Your task to perform on an android device: change your default location settings in chrome Image 0: 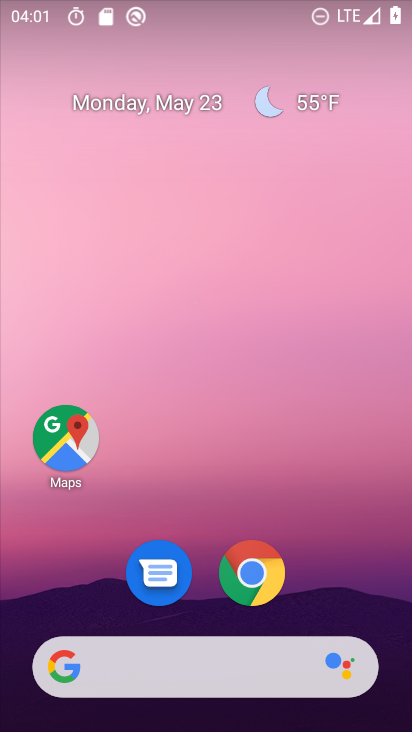
Step 0: click (253, 578)
Your task to perform on an android device: change your default location settings in chrome Image 1: 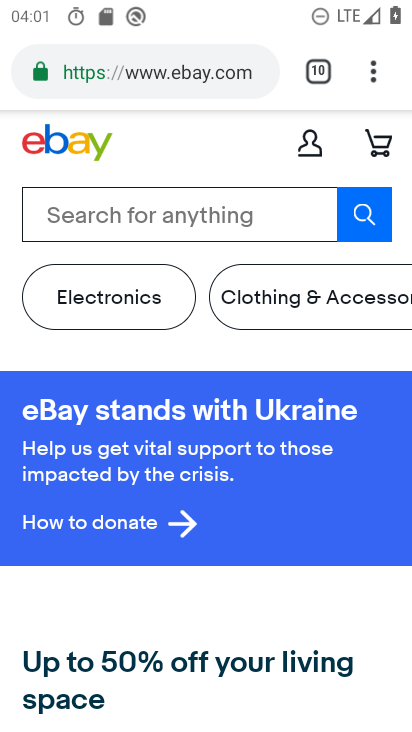
Step 1: click (377, 72)
Your task to perform on an android device: change your default location settings in chrome Image 2: 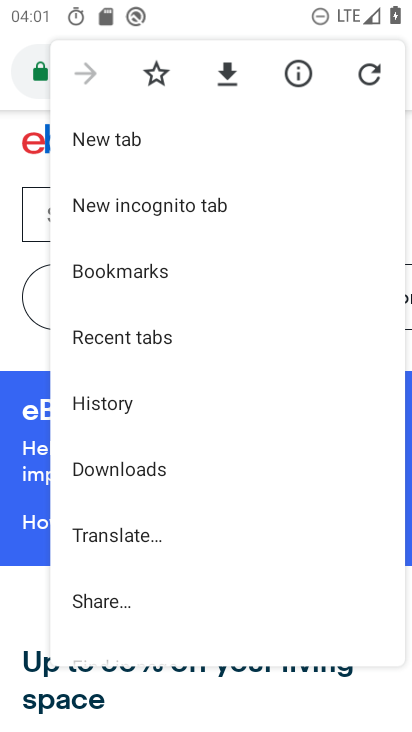
Step 2: drag from (198, 586) to (230, 206)
Your task to perform on an android device: change your default location settings in chrome Image 3: 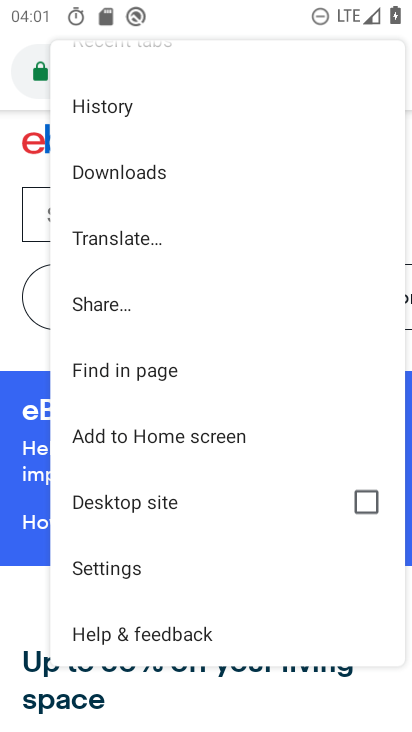
Step 3: click (127, 569)
Your task to perform on an android device: change your default location settings in chrome Image 4: 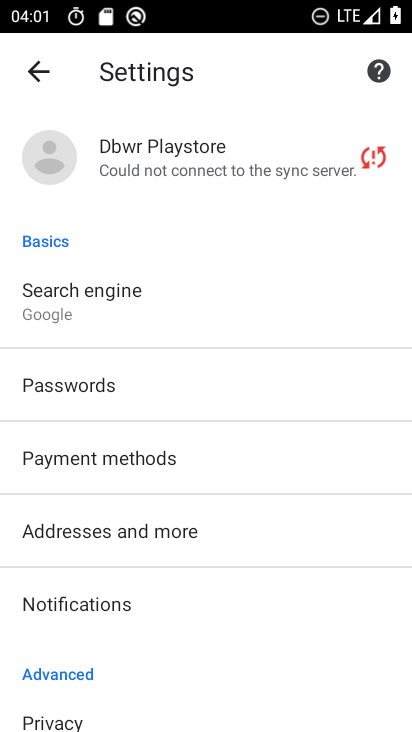
Step 4: drag from (255, 269) to (257, 206)
Your task to perform on an android device: change your default location settings in chrome Image 5: 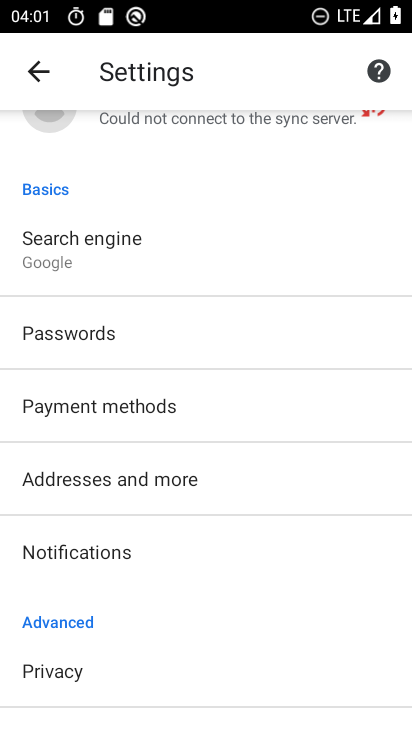
Step 5: drag from (125, 665) to (219, 243)
Your task to perform on an android device: change your default location settings in chrome Image 6: 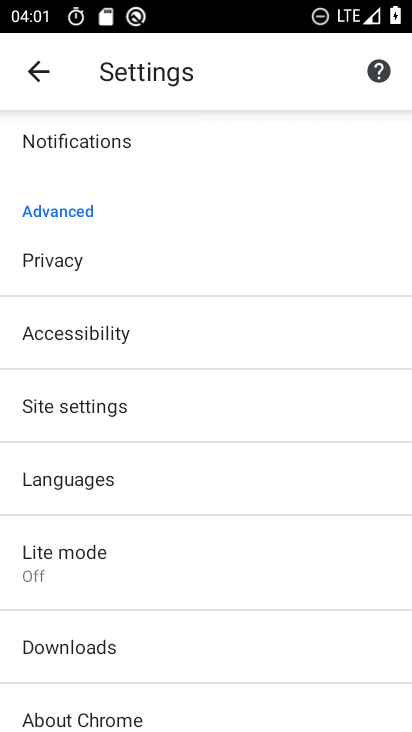
Step 6: click (118, 411)
Your task to perform on an android device: change your default location settings in chrome Image 7: 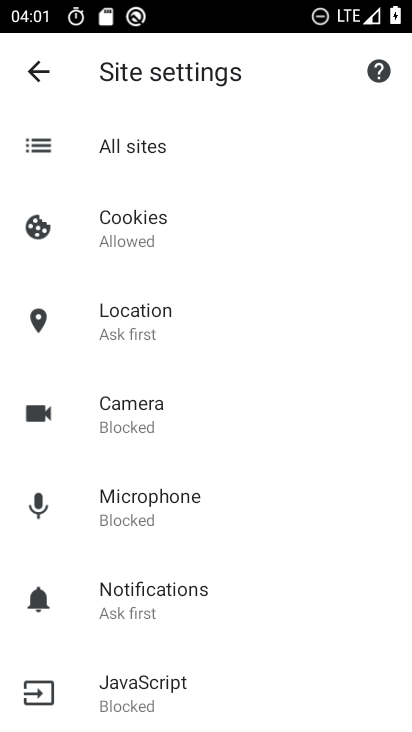
Step 7: click (157, 329)
Your task to perform on an android device: change your default location settings in chrome Image 8: 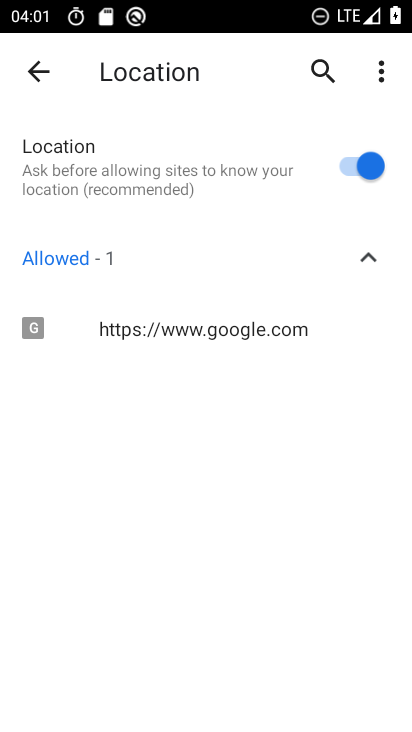
Step 8: click (343, 163)
Your task to perform on an android device: change your default location settings in chrome Image 9: 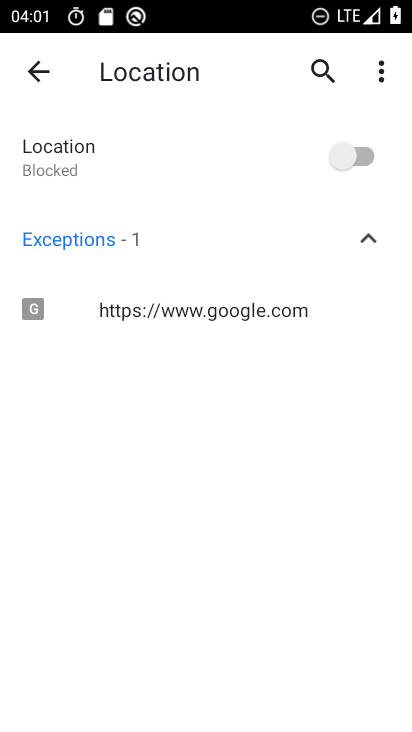
Step 9: task complete